Your task to perform on an android device: Open location settings Image 0: 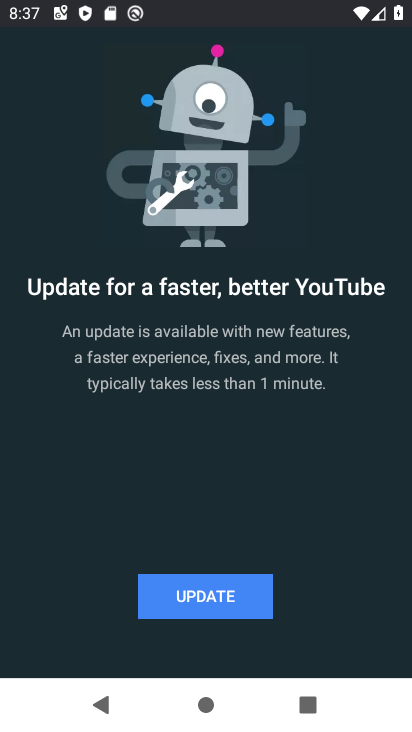
Step 0: press home button
Your task to perform on an android device: Open location settings Image 1: 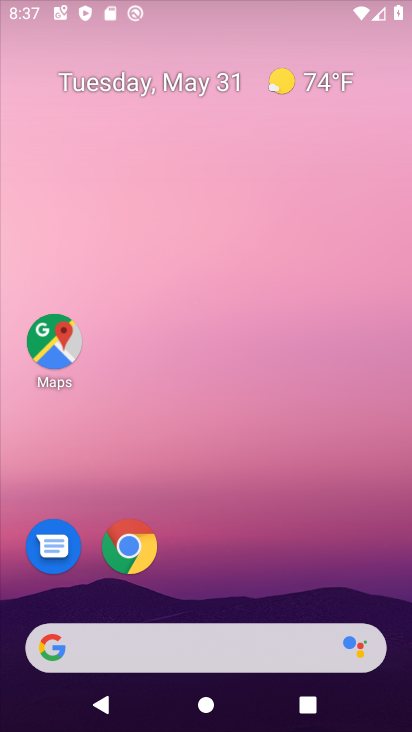
Step 1: drag from (279, 475) to (358, 84)
Your task to perform on an android device: Open location settings Image 2: 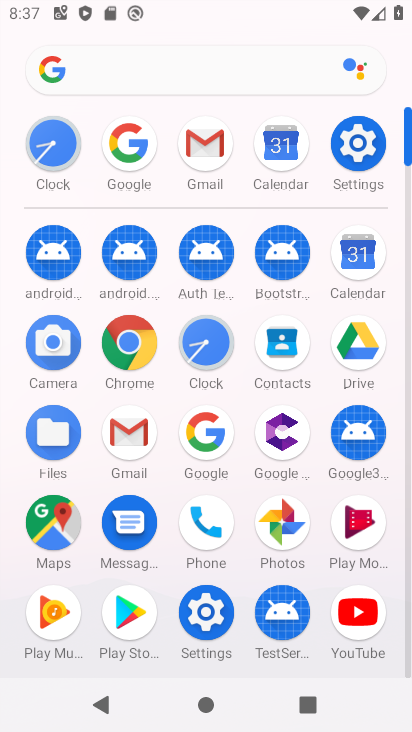
Step 2: click (370, 139)
Your task to perform on an android device: Open location settings Image 3: 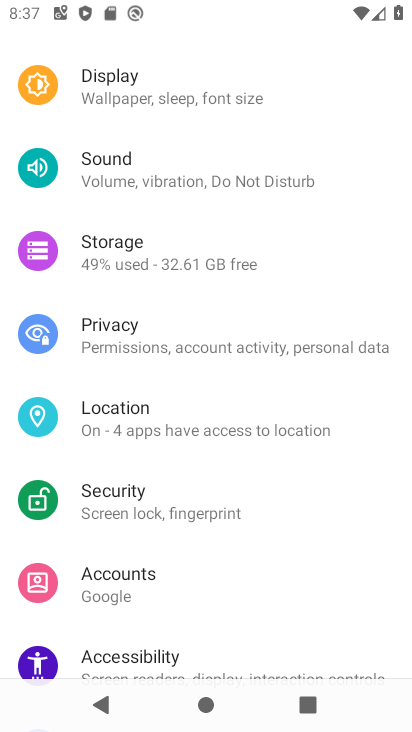
Step 3: click (144, 412)
Your task to perform on an android device: Open location settings Image 4: 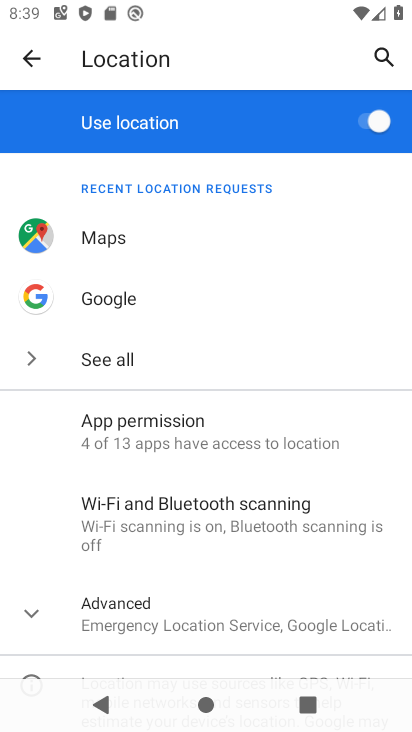
Step 4: task complete